Your task to perform on an android device: clear history in the chrome app Image 0: 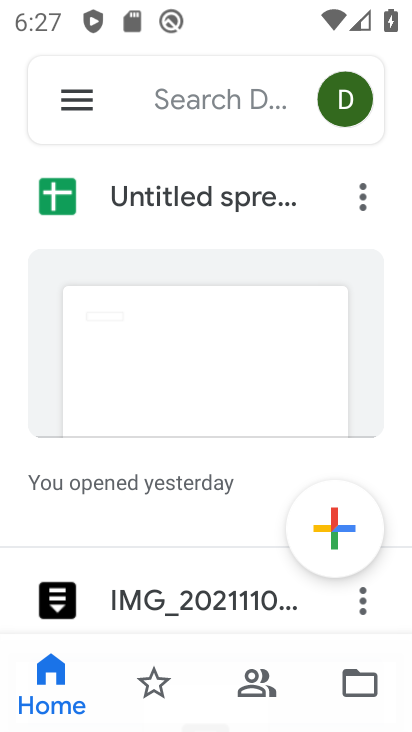
Step 0: press home button
Your task to perform on an android device: clear history in the chrome app Image 1: 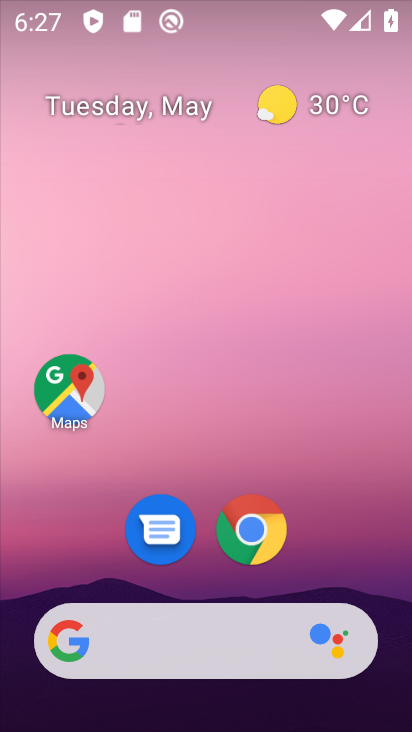
Step 1: click (266, 519)
Your task to perform on an android device: clear history in the chrome app Image 2: 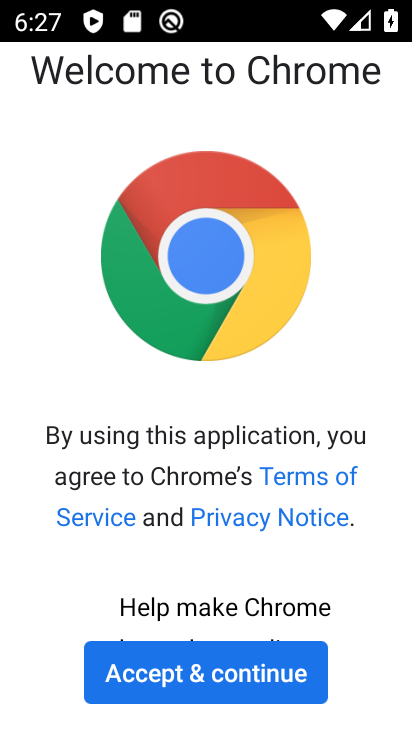
Step 2: click (264, 670)
Your task to perform on an android device: clear history in the chrome app Image 3: 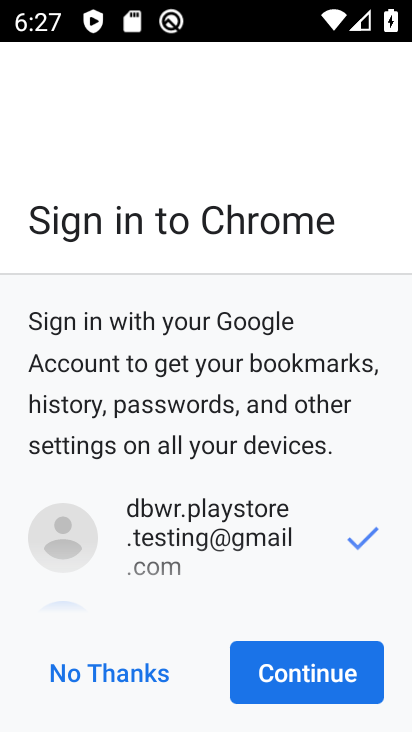
Step 3: click (264, 670)
Your task to perform on an android device: clear history in the chrome app Image 4: 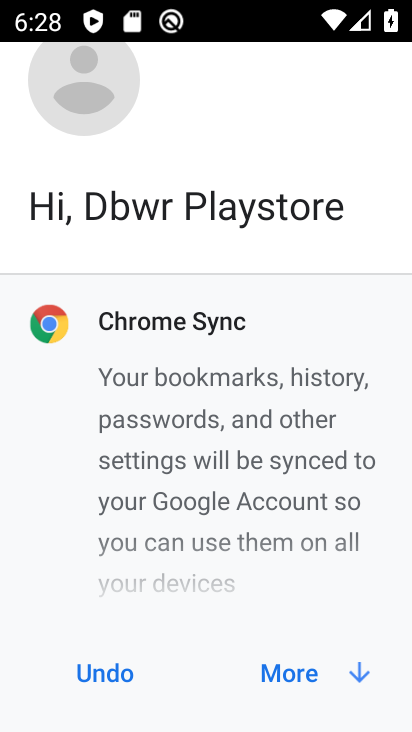
Step 4: click (264, 670)
Your task to perform on an android device: clear history in the chrome app Image 5: 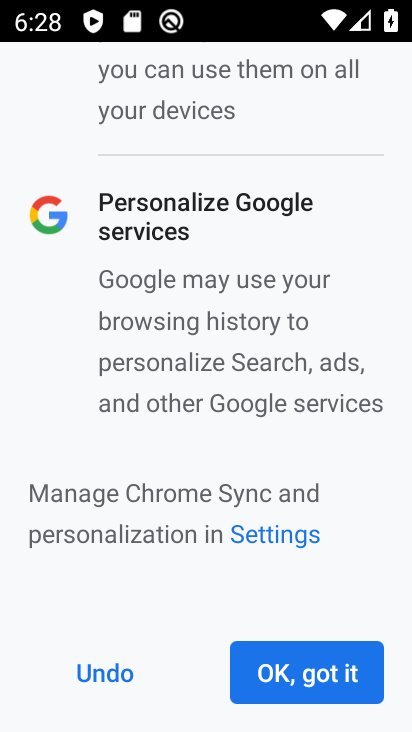
Step 5: click (264, 670)
Your task to perform on an android device: clear history in the chrome app Image 6: 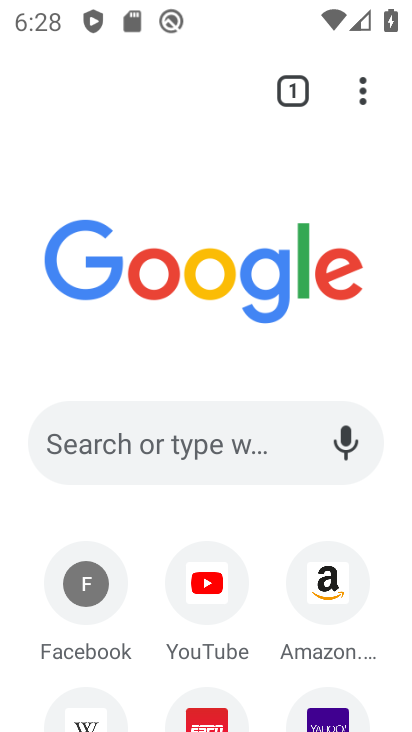
Step 6: click (367, 89)
Your task to perform on an android device: clear history in the chrome app Image 7: 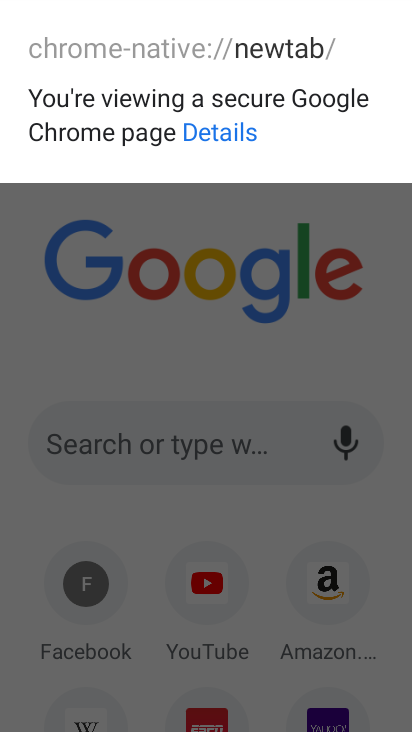
Step 7: press back button
Your task to perform on an android device: clear history in the chrome app Image 8: 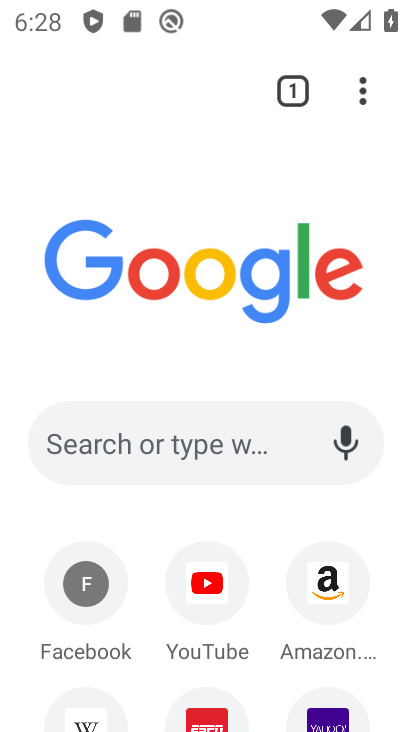
Step 8: click (375, 89)
Your task to perform on an android device: clear history in the chrome app Image 9: 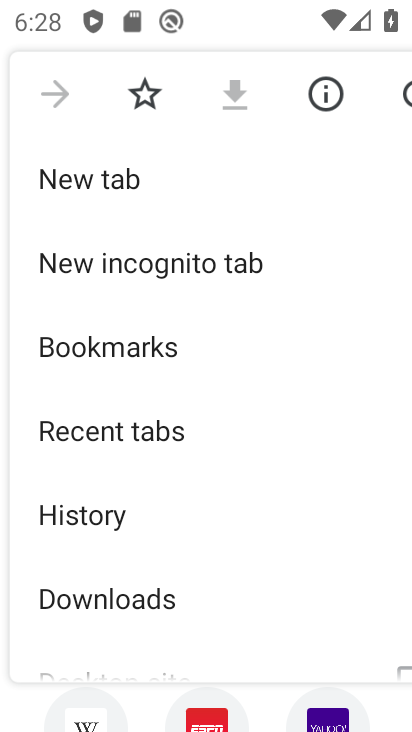
Step 9: click (128, 521)
Your task to perform on an android device: clear history in the chrome app Image 10: 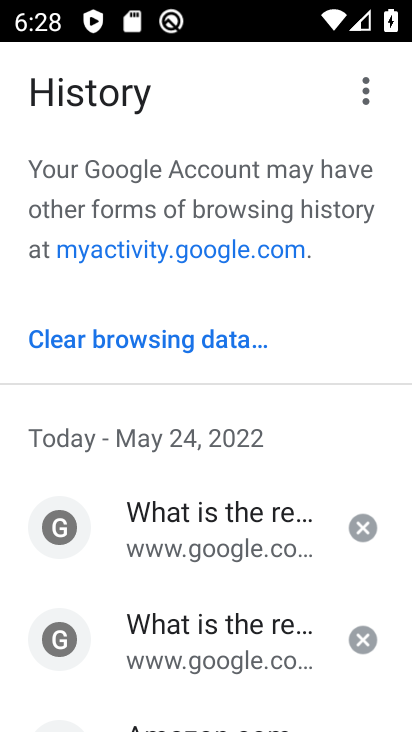
Step 10: click (178, 335)
Your task to perform on an android device: clear history in the chrome app Image 11: 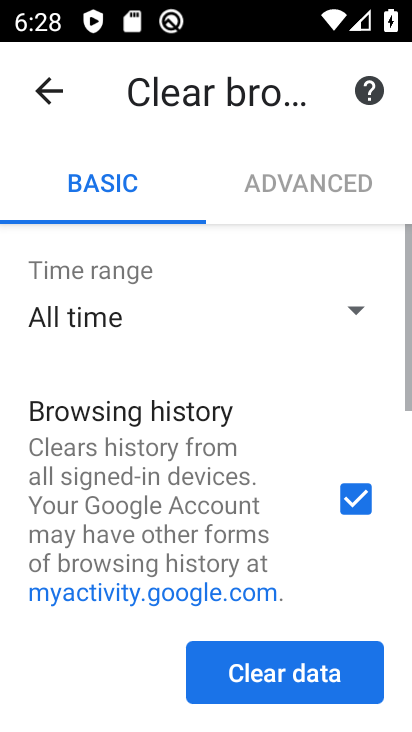
Step 11: click (333, 686)
Your task to perform on an android device: clear history in the chrome app Image 12: 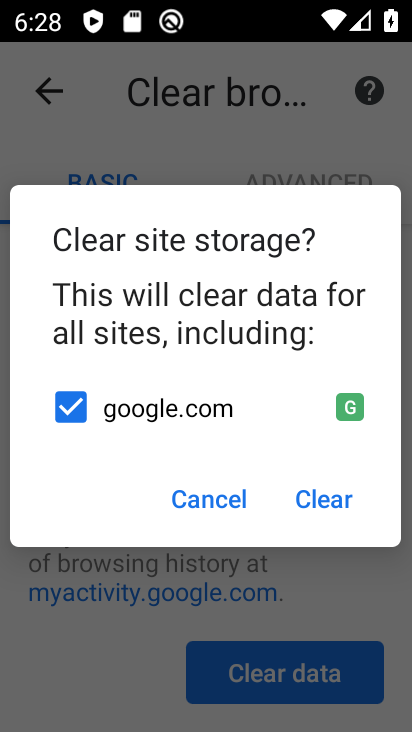
Step 12: click (313, 498)
Your task to perform on an android device: clear history in the chrome app Image 13: 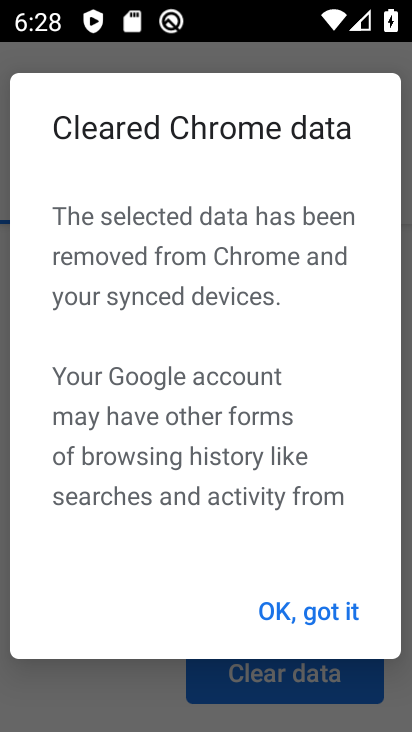
Step 13: click (352, 615)
Your task to perform on an android device: clear history in the chrome app Image 14: 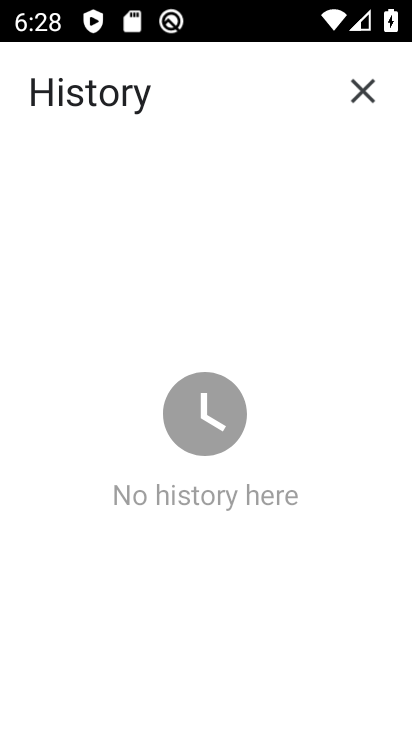
Step 14: task complete